Your task to perform on an android device: turn on wifi Image 0: 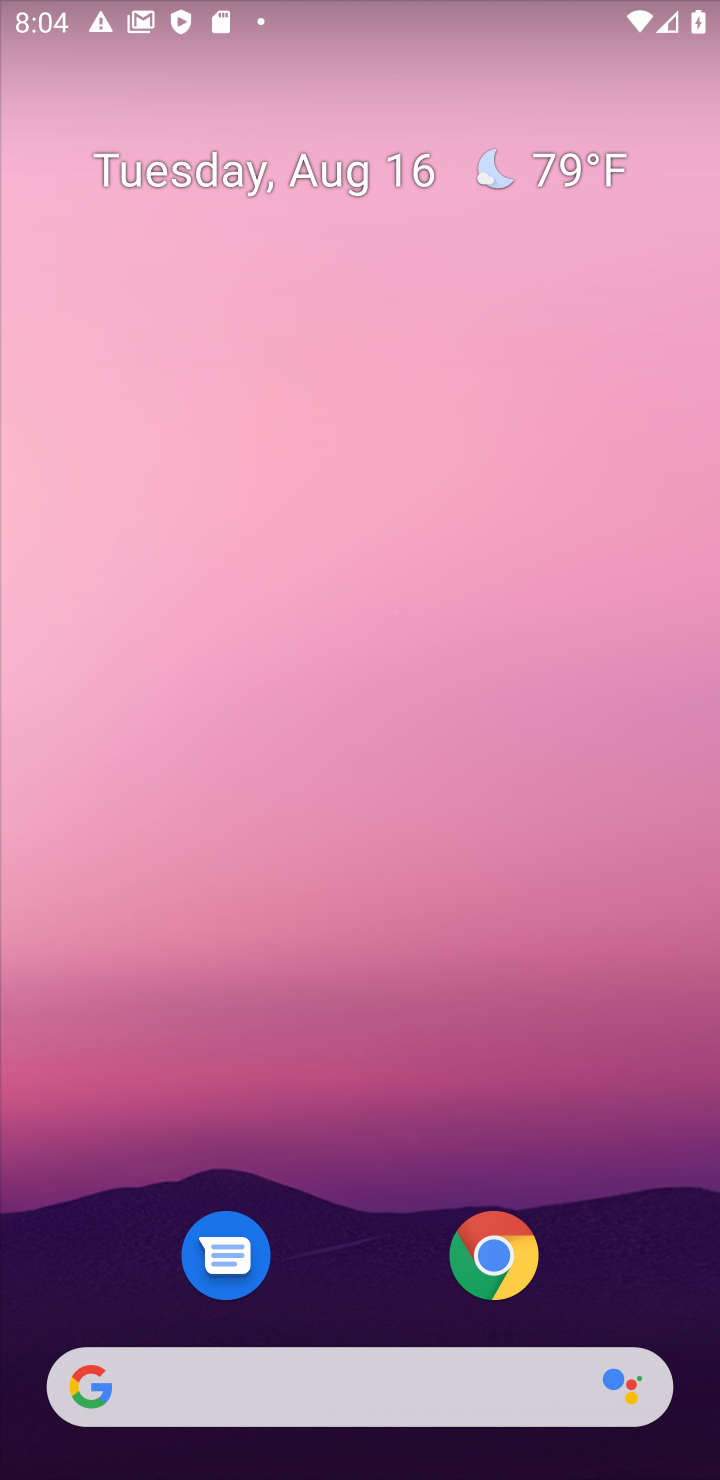
Step 0: drag from (297, 1324) to (221, 420)
Your task to perform on an android device: turn on wifi Image 1: 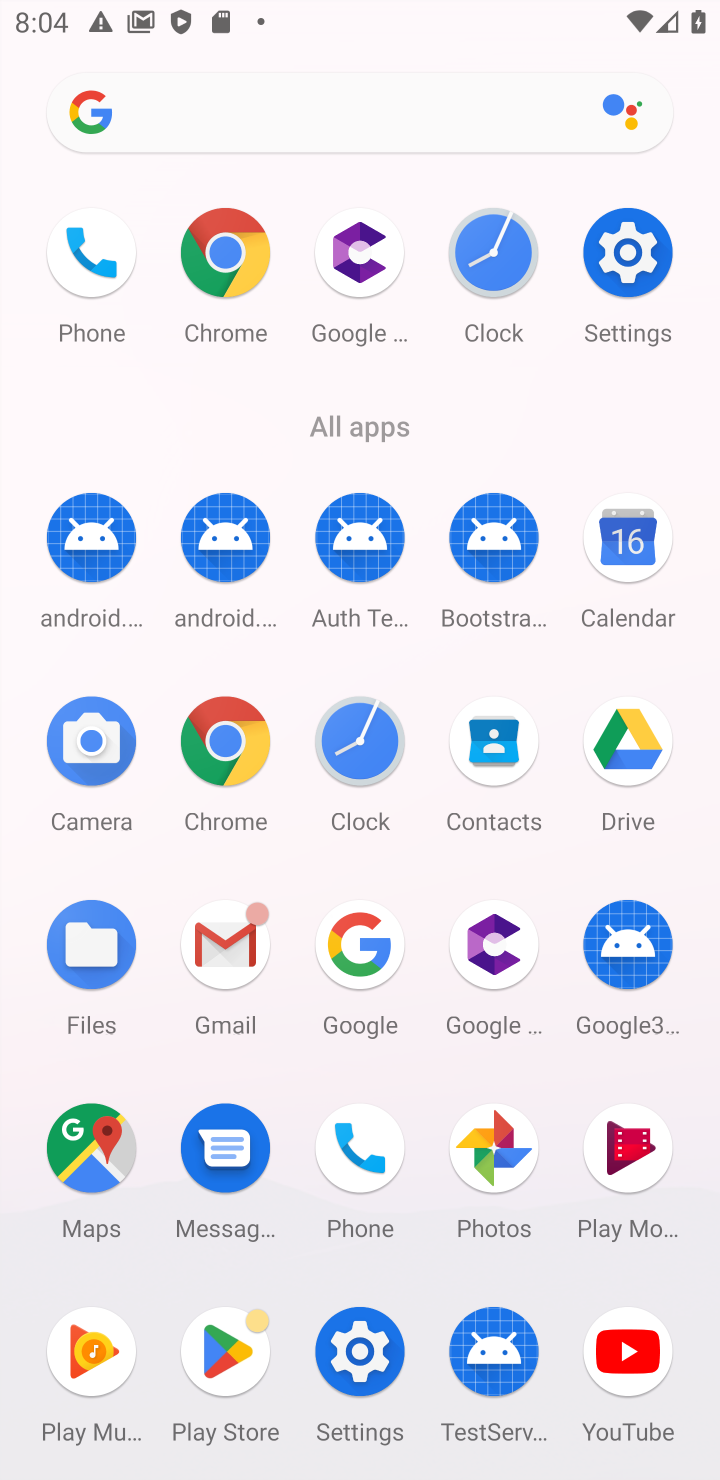
Step 1: click (613, 268)
Your task to perform on an android device: turn on wifi Image 2: 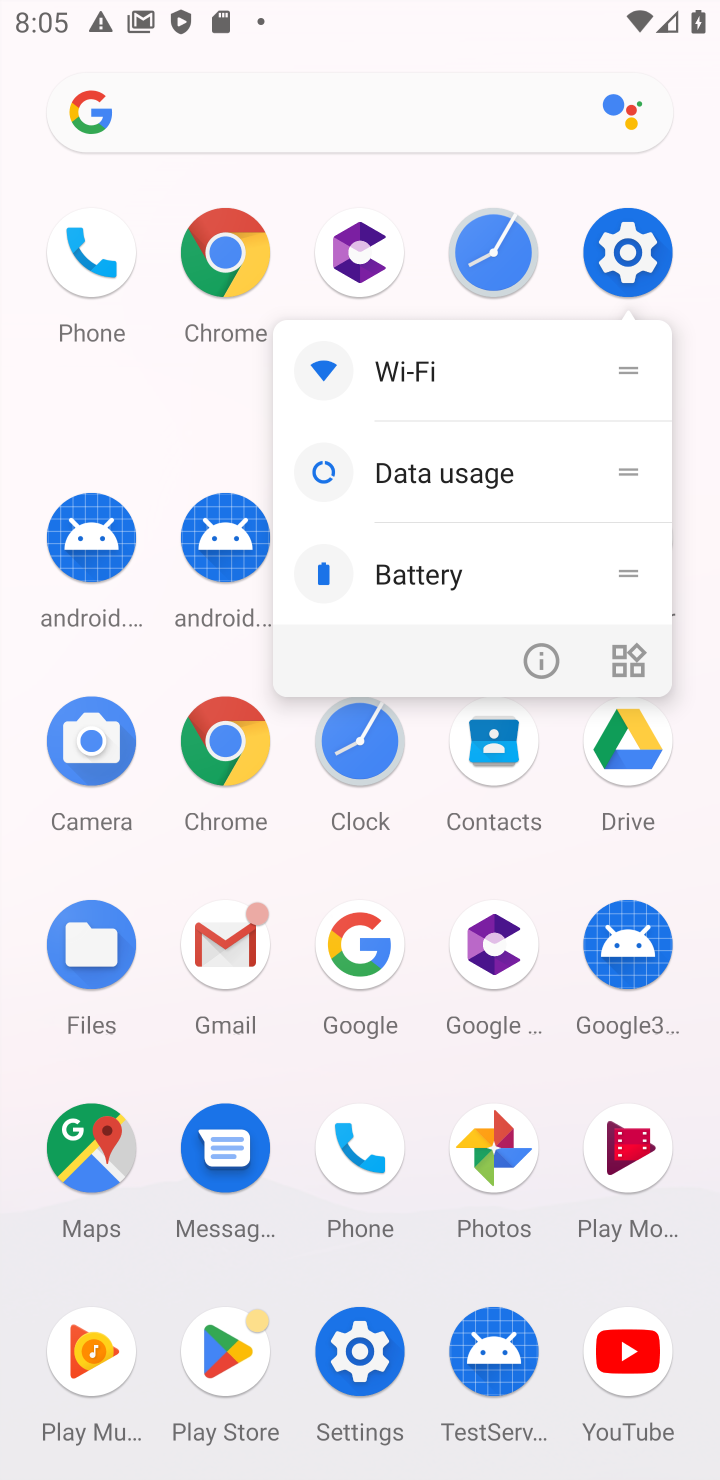
Step 2: click (603, 232)
Your task to perform on an android device: turn on wifi Image 3: 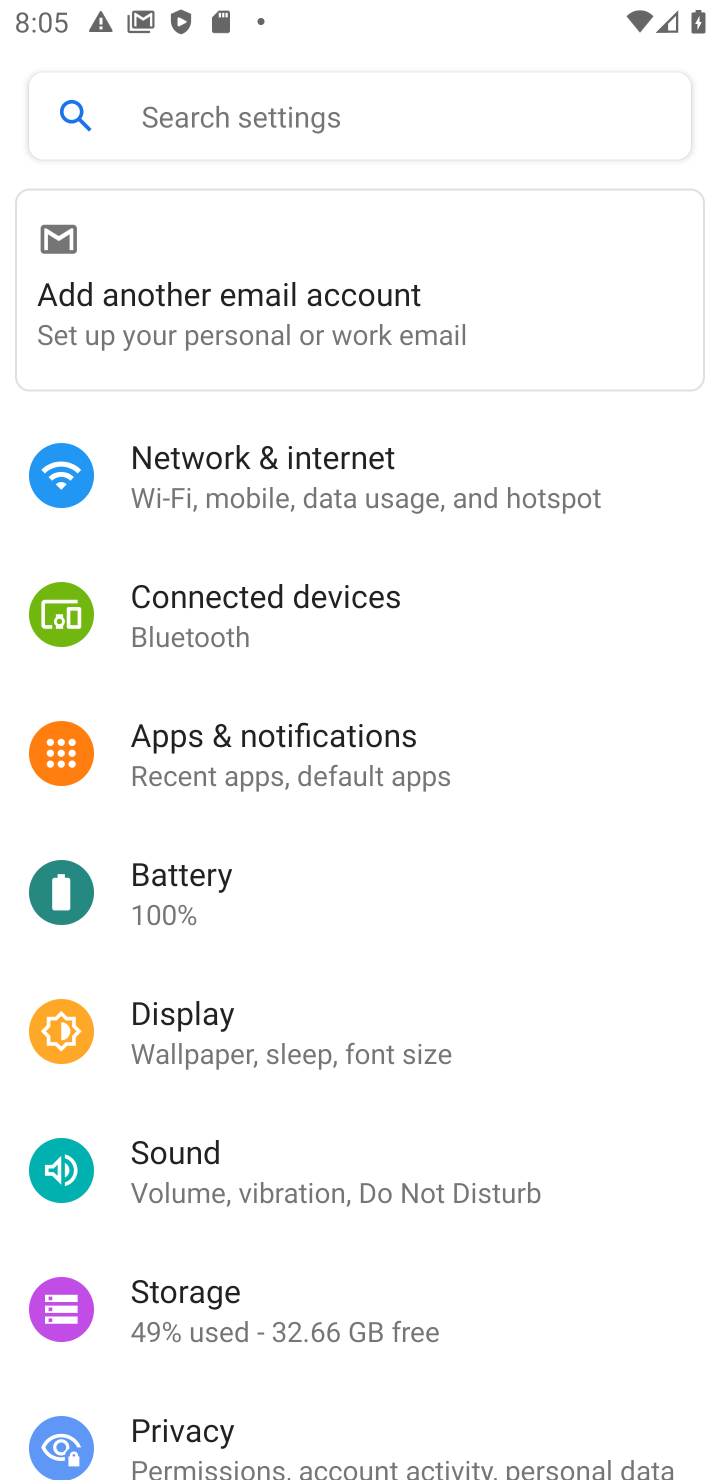
Step 3: click (273, 469)
Your task to perform on an android device: turn on wifi Image 4: 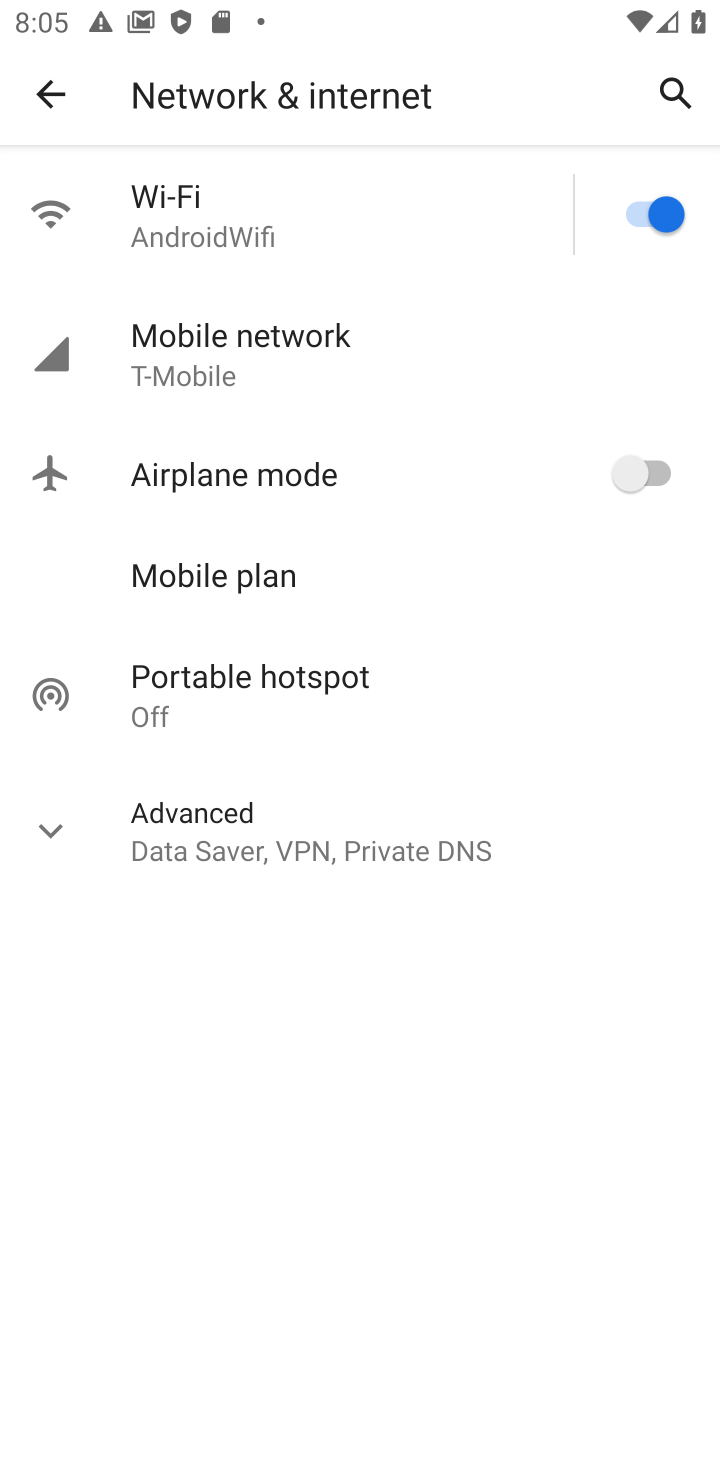
Step 4: task complete